Your task to perform on an android device: see tabs open on other devices in the chrome app Image 0: 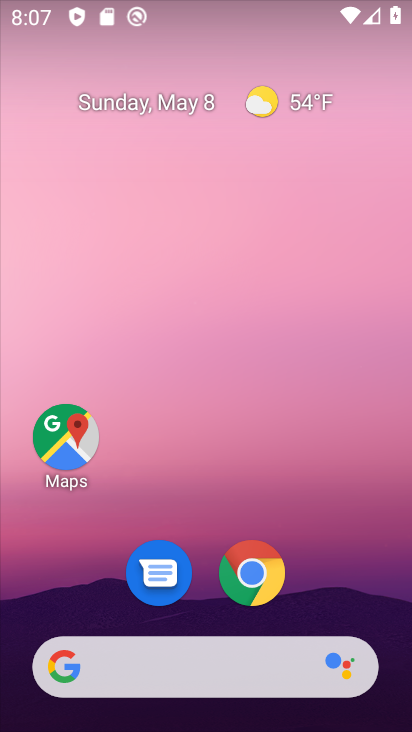
Step 0: click (258, 571)
Your task to perform on an android device: see tabs open on other devices in the chrome app Image 1: 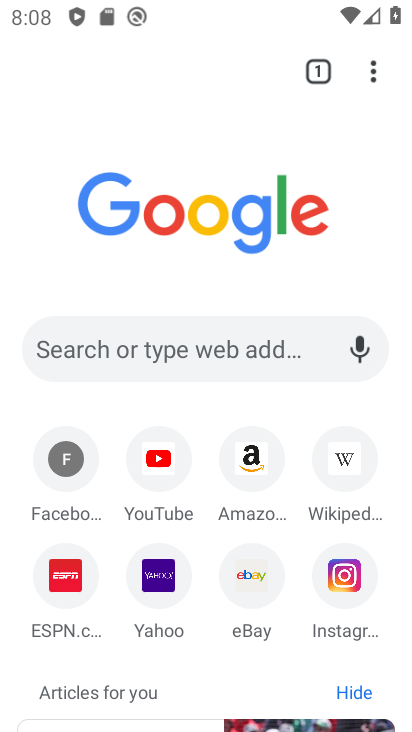
Step 1: task complete